Your task to perform on an android device: Go to Amazon Image 0: 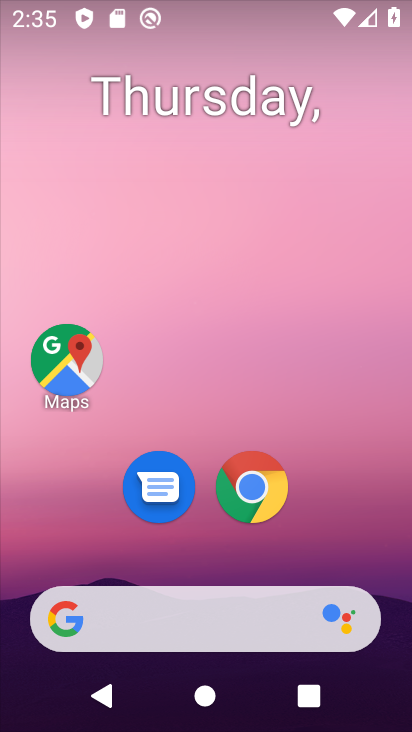
Step 0: click (243, 473)
Your task to perform on an android device: Go to Amazon Image 1: 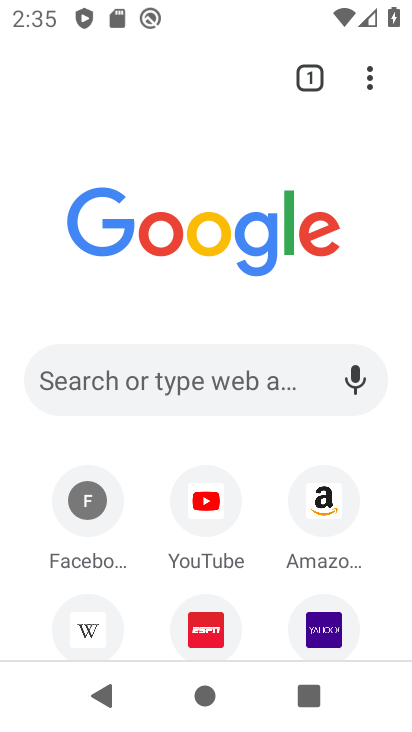
Step 1: click (334, 540)
Your task to perform on an android device: Go to Amazon Image 2: 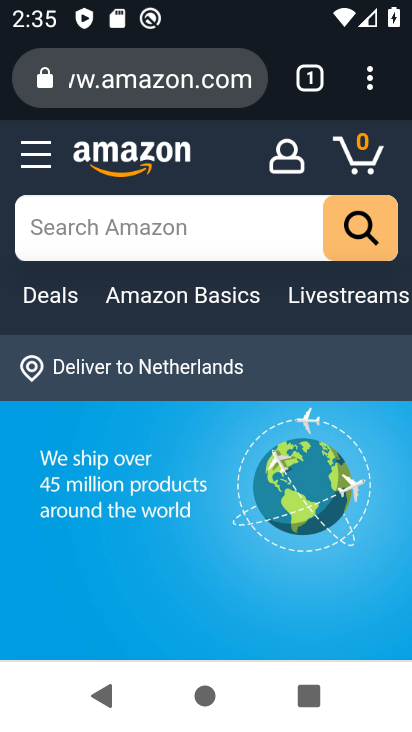
Step 2: task complete